Your task to perform on an android device: move a message to another label in the gmail app Image 0: 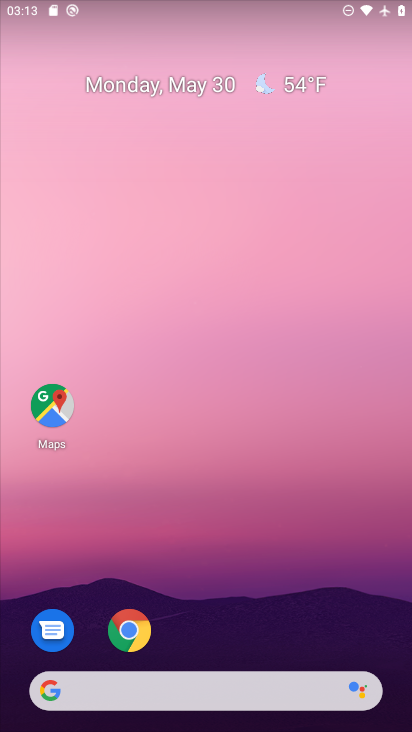
Step 0: press home button
Your task to perform on an android device: move a message to another label in the gmail app Image 1: 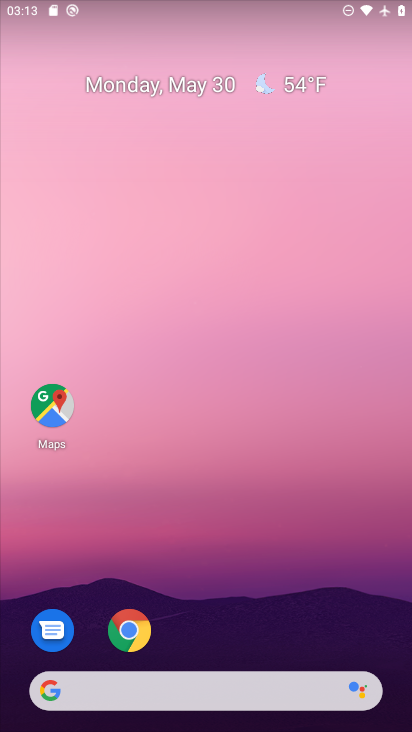
Step 1: drag from (181, 683) to (256, 247)
Your task to perform on an android device: move a message to another label in the gmail app Image 2: 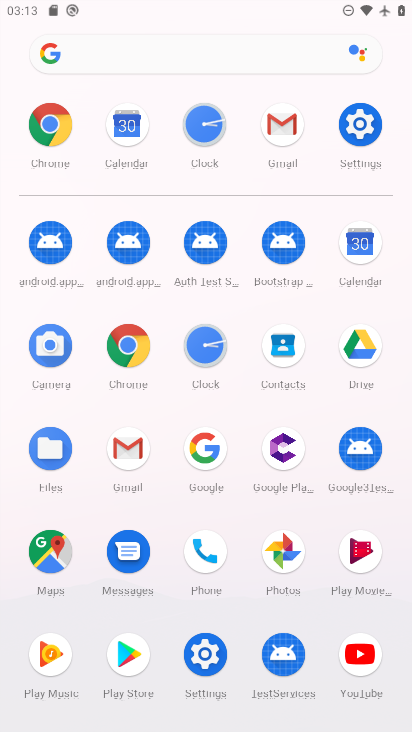
Step 2: click (272, 127)
Your task to perform on an android device: move a message to another label in the gmail app Image 3: 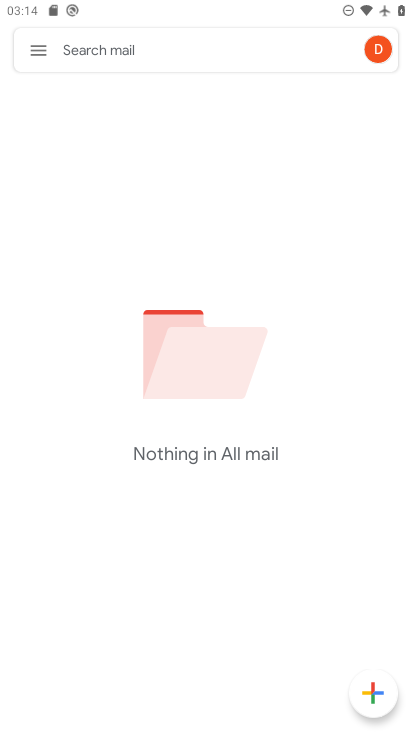
Step 3: task complete